Your task to perform on an android device: turn pop-ups off in chrome Image 0: 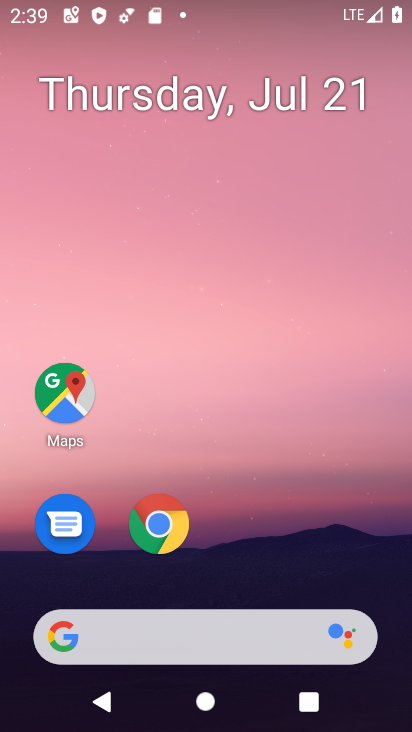
Step 0: drag from (273, 552) to (276, 78)
Your task to perform on an android device: turn pop-ups off in chrome Image 1: 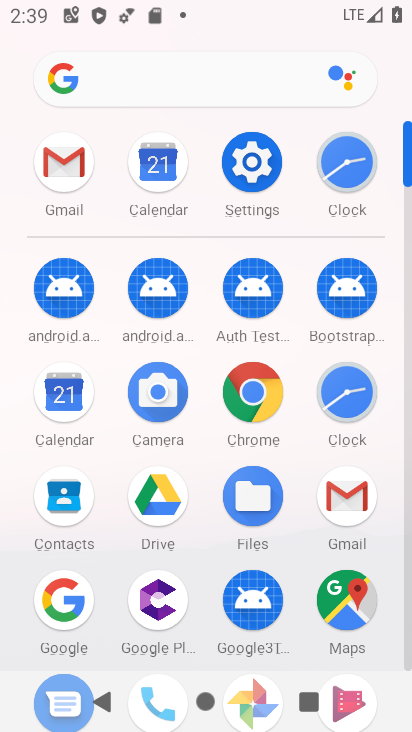
Step 1: click (257, 399)
Your task to perform on an android device: turn pop-ups off in chrome Image 2: 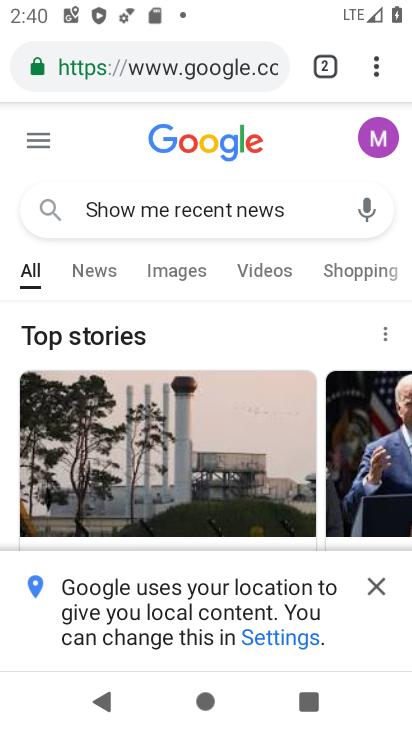
Step 2: press home button
Your task to perform on an android device: turn pop-ups off in chrome Image 3: 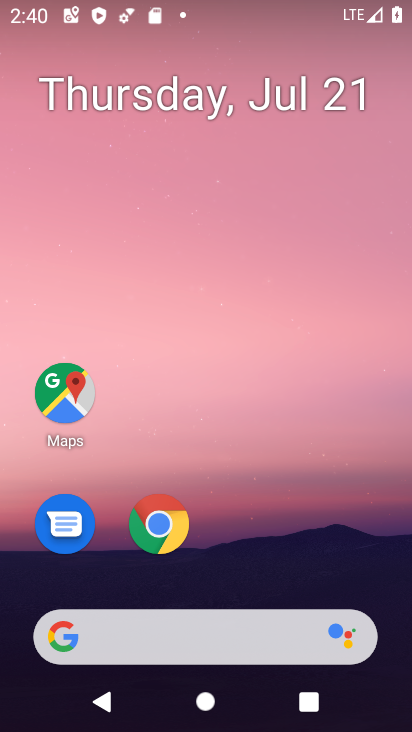
Step 3: click (176, 530)
Your task to perform on an android device: turn pop-ups off in chrome Image 4: 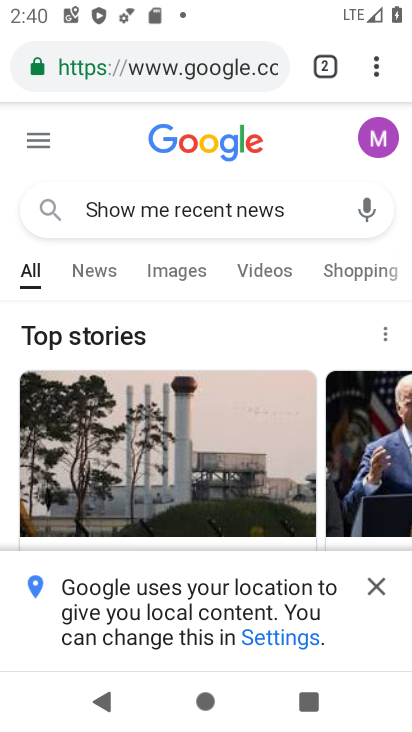
Step 4: click (377, 65)
Your task to perform on an android device: turn pop-ups off in chrome Image 5: 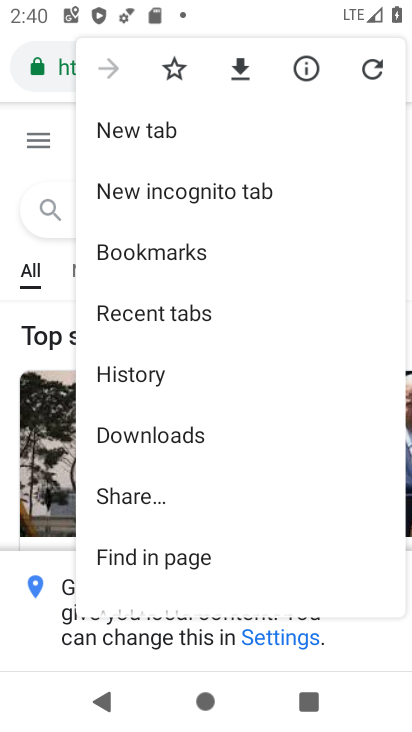
Step 5: drag from (240, 454) to (238, 111)
Your task to perform on an android device: turn pop-ups off in chrome Image 6: 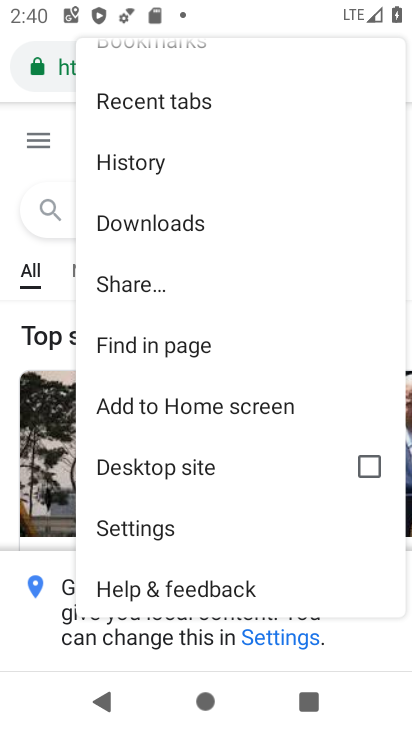
Step 6: click (150, 516)
Your task to perform on an android device: turn pop-ups off in chrome Image 7: 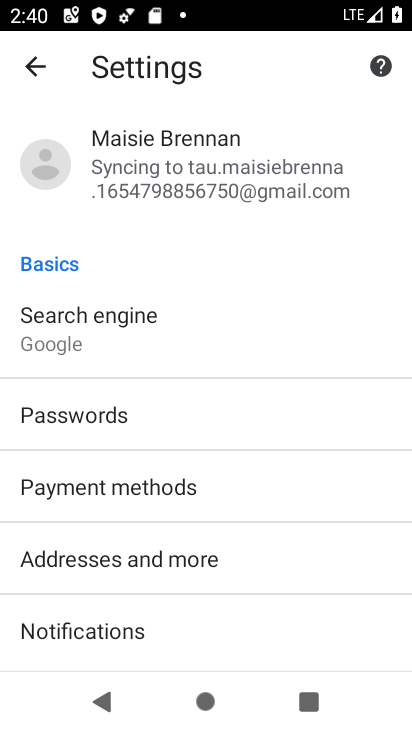
Step 7: drag from (269, 580) to (293, 168)
Your task to perform on an android device: turn pop-ups off in chrome Image 8: 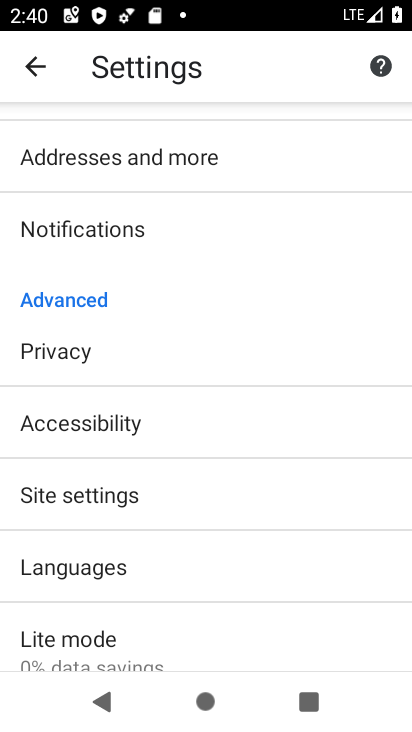
Step 8: click (98, 488)
Your task to perform on an android device: turn pop-ups off in chrome Image 9: 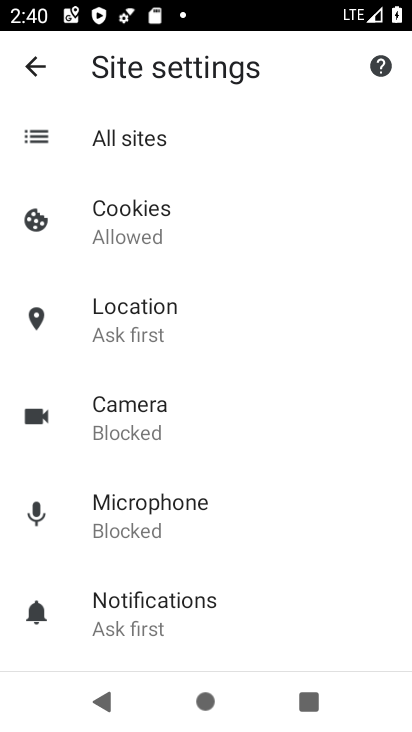
Step 9: drag from (250, 570) to (269, 251)
Your task to perform on an android device: turn pop-ups off in chrome Image 10: 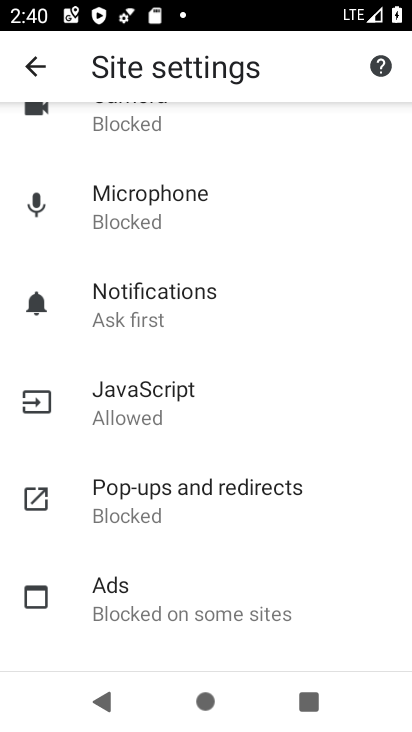
Step 10: click (220, 489)
Your task to perform on an android device: turn pop-ups off in chrome Image 11: 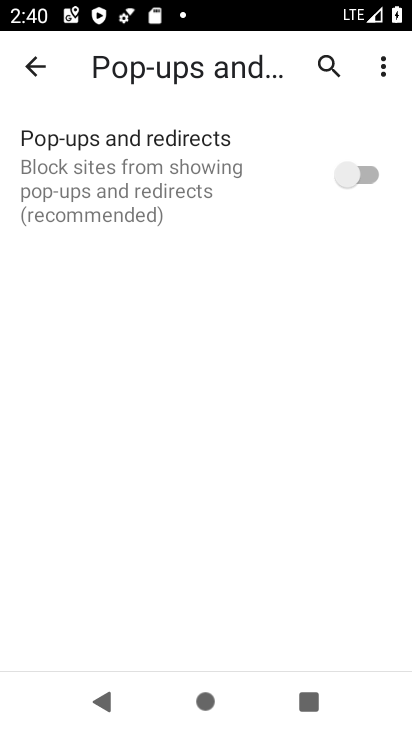
Step 11: task complete